Your task to perform on an android device: Go to sound settings Image 0: 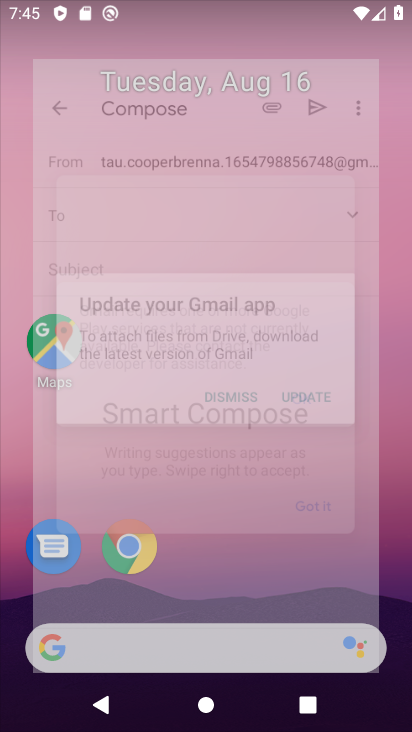
Step 0: drag from (200, 500) to (200, 43)
Your task to perform on an android device: Go to sound settings Image 1: 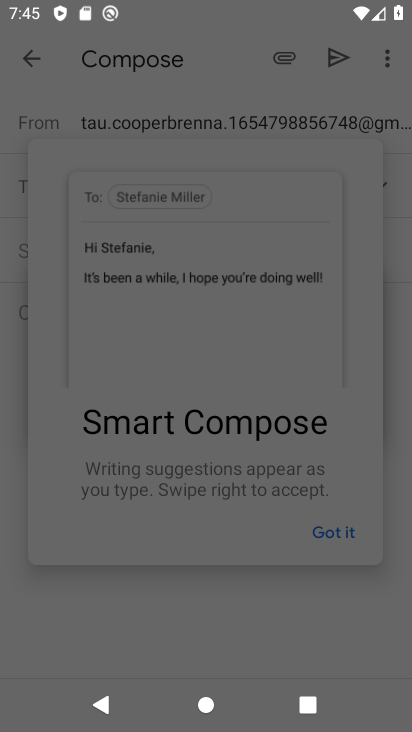
Step 1: click (330, 537)
Your task to perform on an android device: Go to sound settings Image 2: 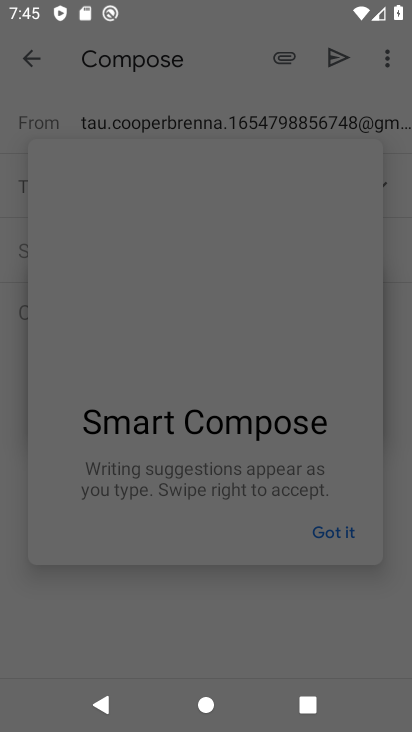
Step 2: click (330, 537)
Your task to perform on an android device: Go to sound settings Image 3: 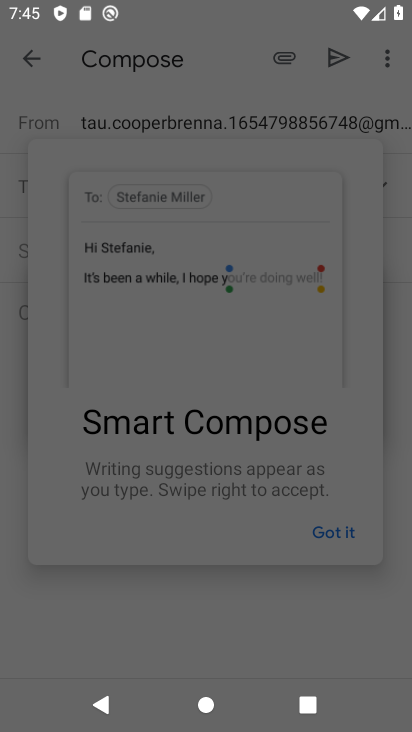
Step 3: click (330, 537)
Your task to perform on an android device: Go to sound settings Image 4: 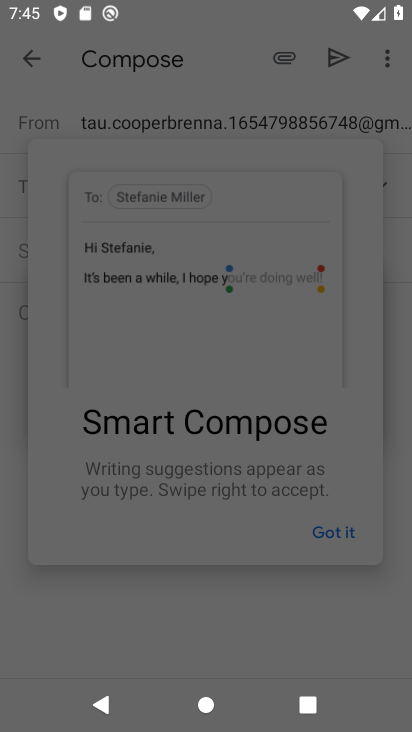
Step 4: click (330, 537)
Your task to perform on an android device: Go to sound settings Image 5: 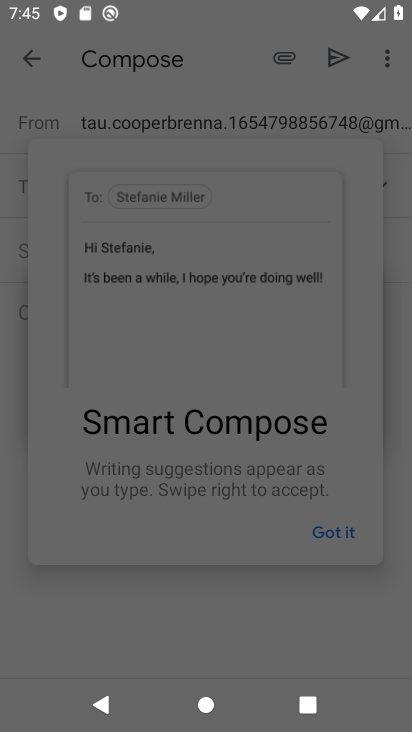
Step 5: click (330, 537)
Your task to perform on an android device: Go to sound settings Image 6: 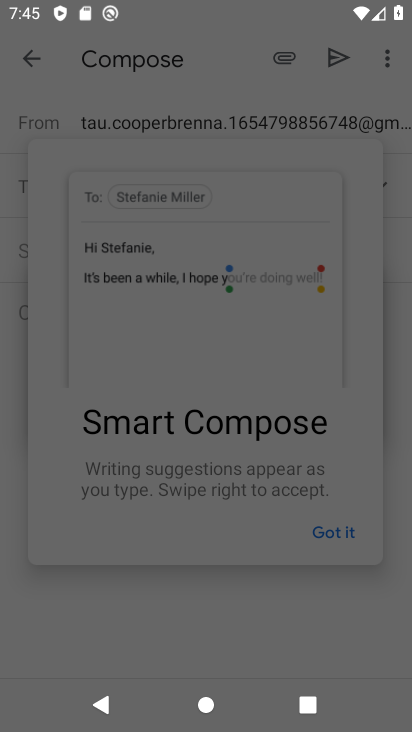
Step 6: press home button
Your task to perform on an android device: Go to sound settings Image 7: 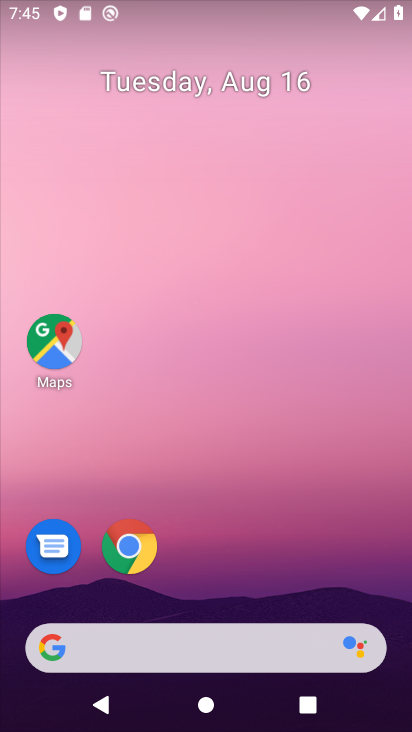
Step 7: drag from (191, 504) to (191, 24)
Your task to perform on an android device: Go to sound settings Image 8: 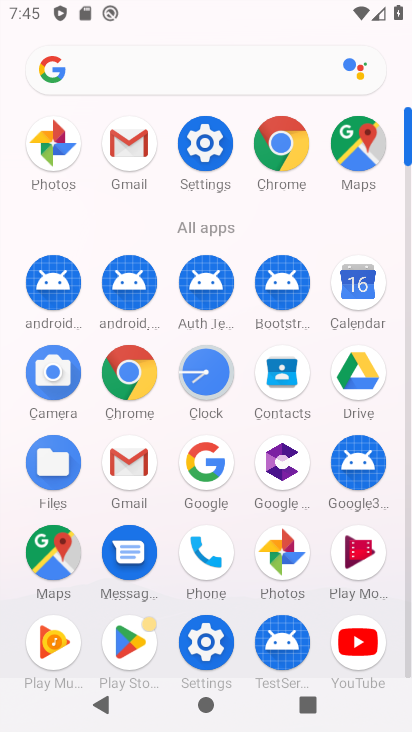
Step 8: click (200, 142)
Your task to perform on an android device: Go to sound settings Image 9: 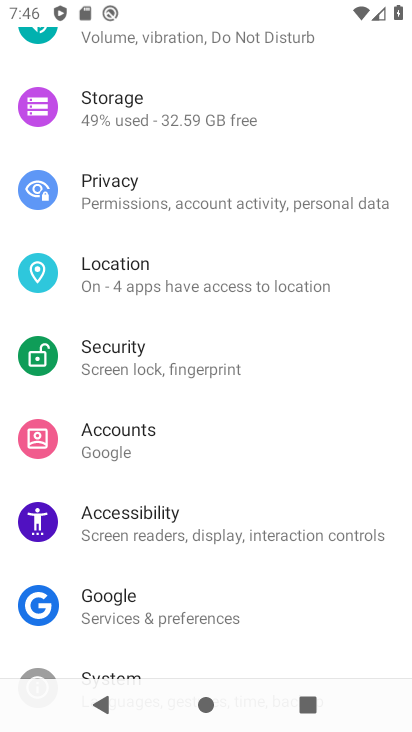
Step 9: drag from (197, 196) to (197, 455)
Your task to perform on an android device: Go to sound settings Image 10: 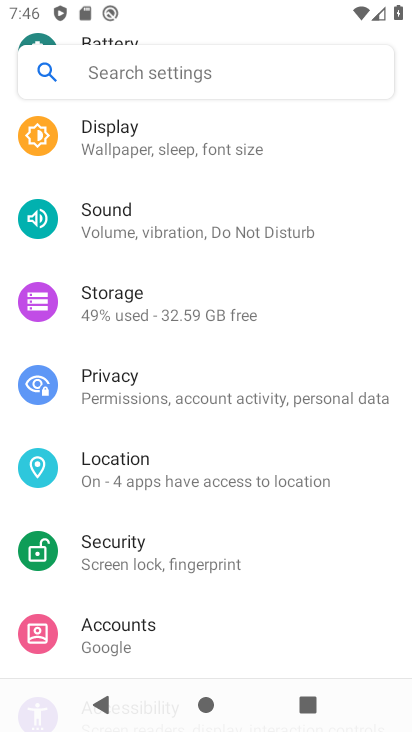
Step 10: click (127, 224)
Your task to perform on an android device: Go to sound settings Image 11: 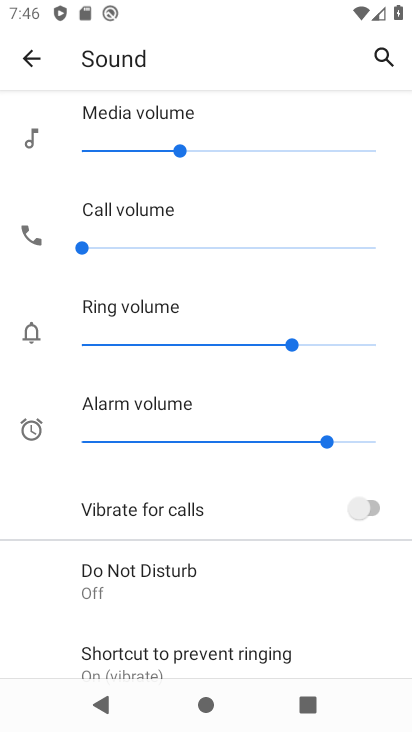
Step 11: task complete